Your task to perform on an android device: toggle location history Image 0: 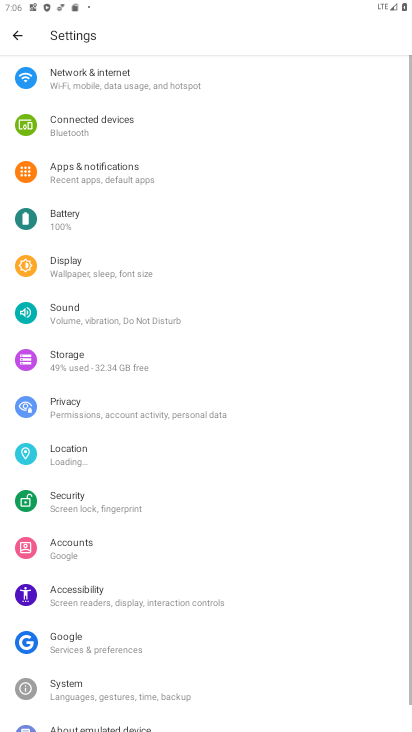
Step 0: drag from (372, 657) to (331, 169)
Your task to perform on an android device: toggle location history Image 1: 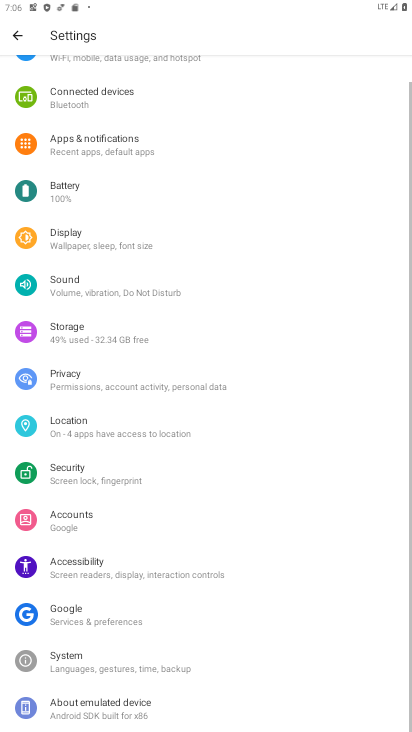
Step 1: click (165, 422)
Your task to perform on an android device: toggle location history Image 2: 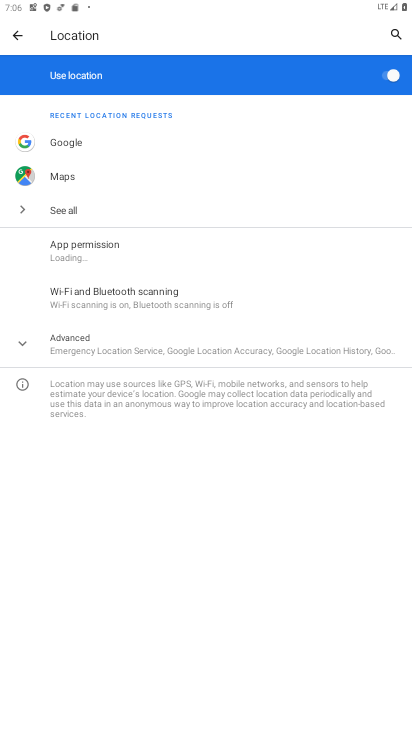
Step 2: click (64, 331)
Your task to perform on an android device: toggle location history Image 3: 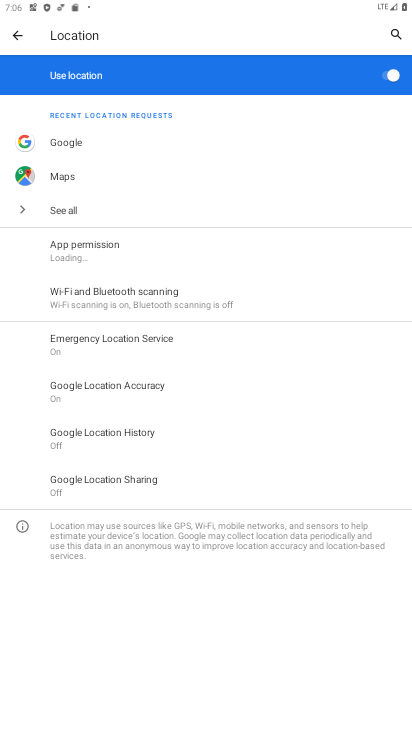
Step 3: click (99, 446)
Your task to perform on an android device: toggle location history Image 4: 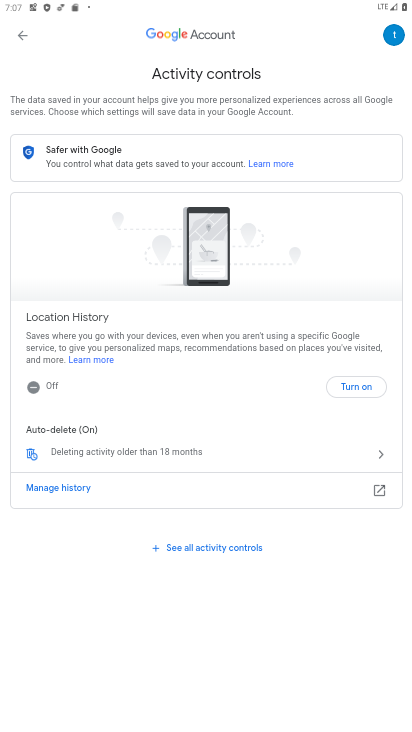
Step 4: click (359, 385)
Your task to perform on an android device: toggle location history Image 5: 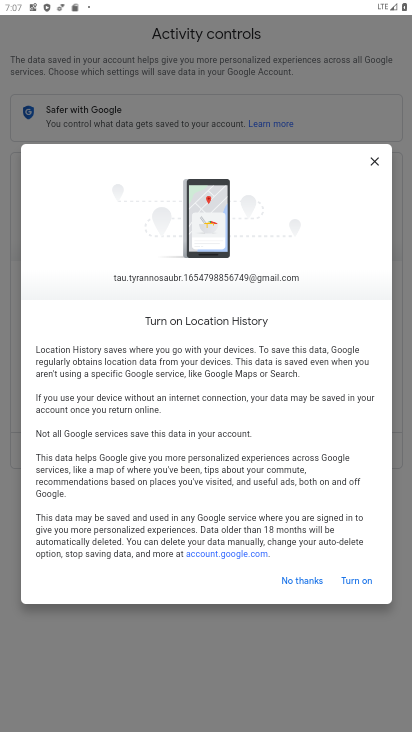
Step 5: click (354, 576)
Your task to perform on an android device: toggle location history Image 6: 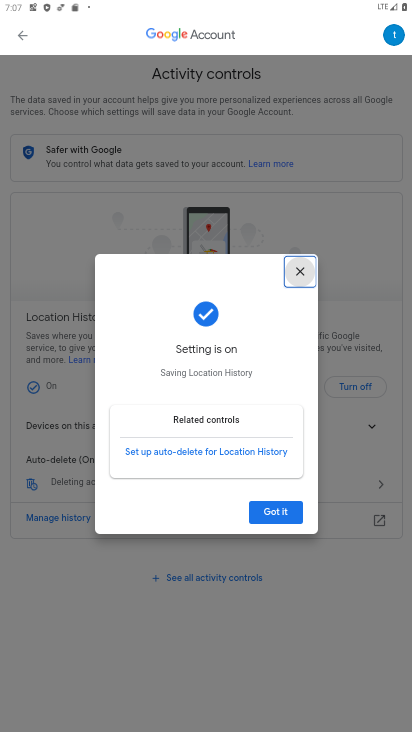
Step 6: click (280, 518)
Your task to perform on an android device: toggle location history Image 7: 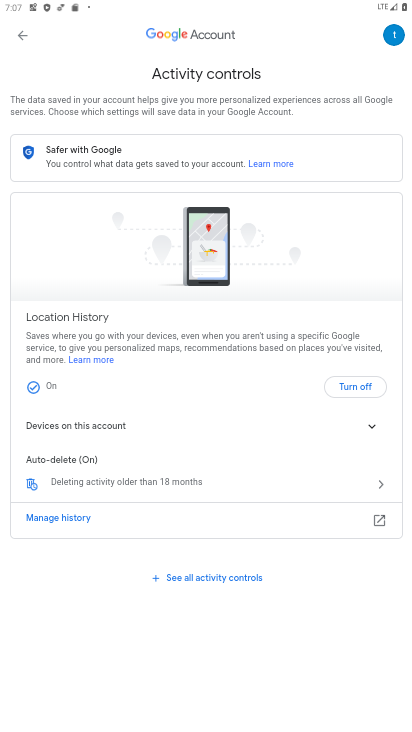
Step 7: task complete